Your task to perform on an android device: uninstall "Reddit" Image 0: 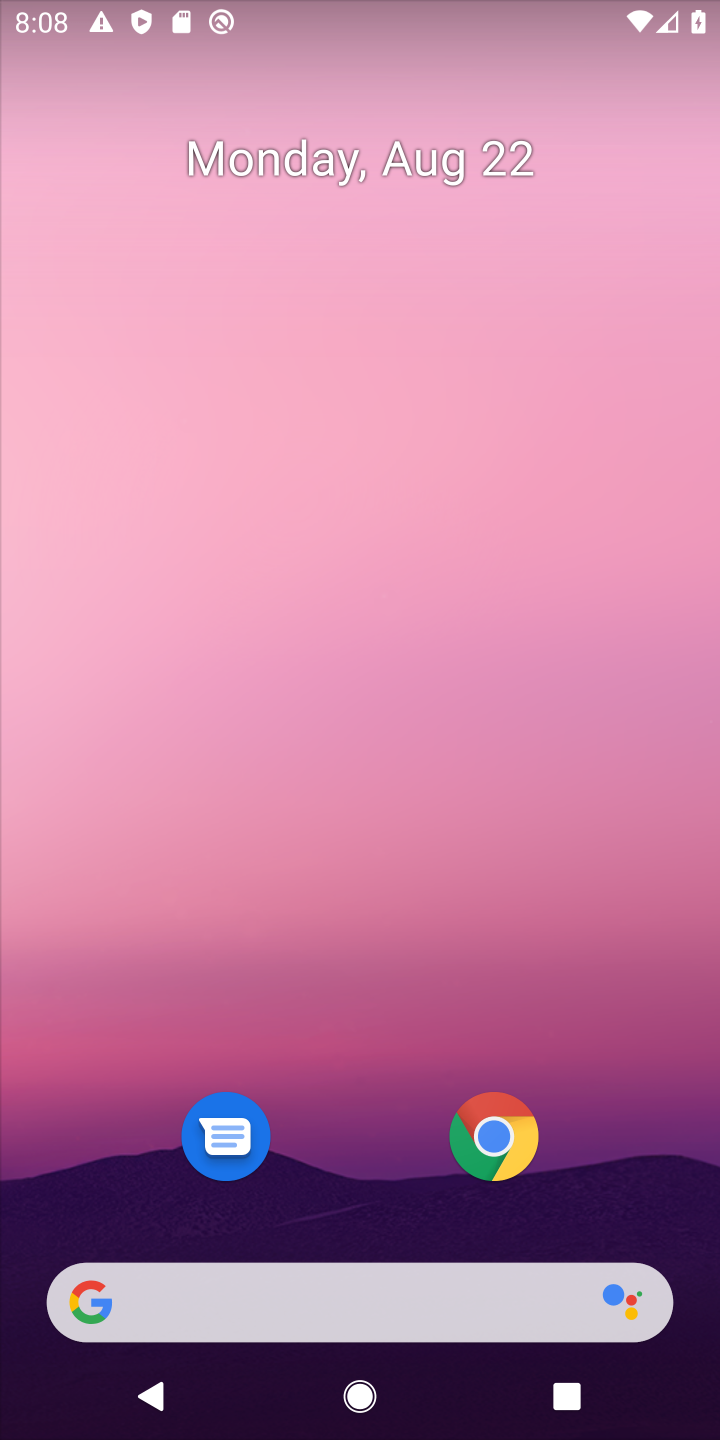
Step 0: drag from (290, 1093) to (201, 329)
Your task to perform on an android device: uninstall "Reddit" Image 1: 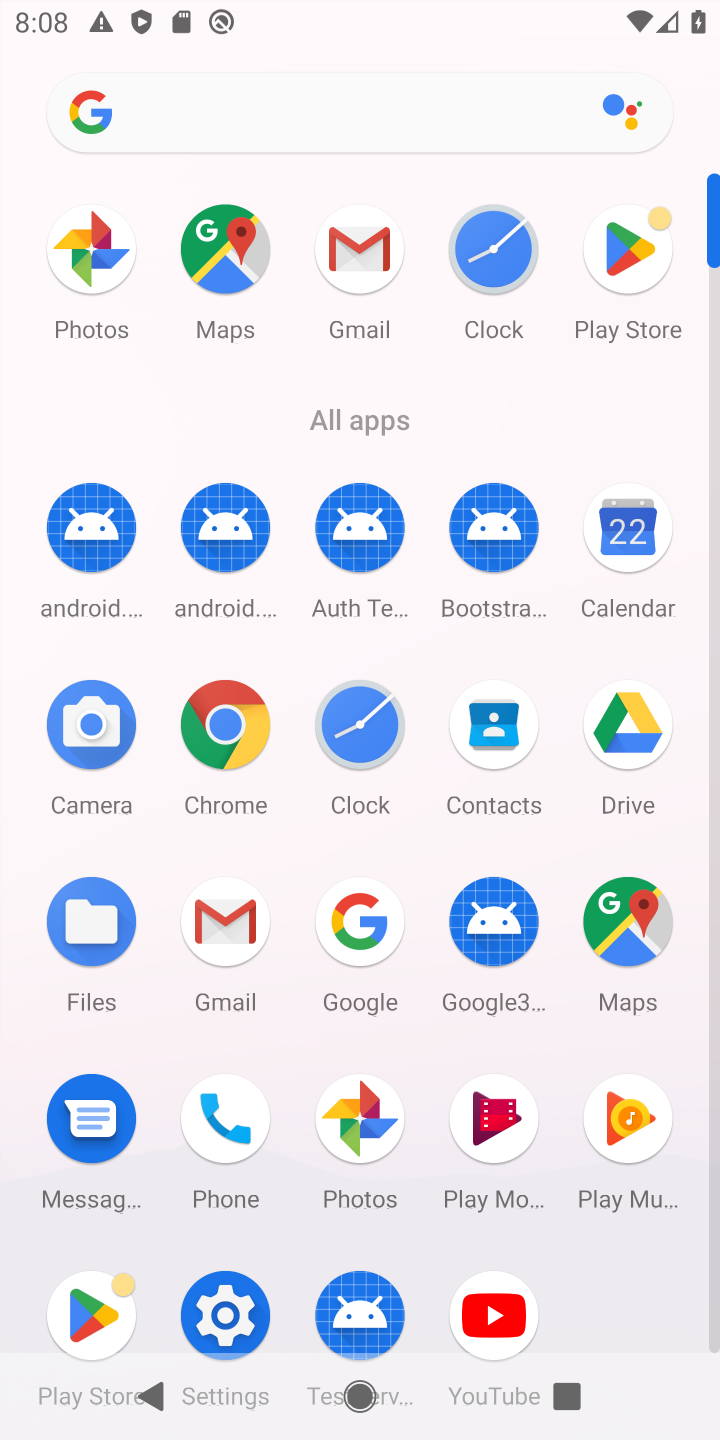
Step 1: click (613, 243)
Your task to perform on an android device: uninstall "Reddit" Image 2: 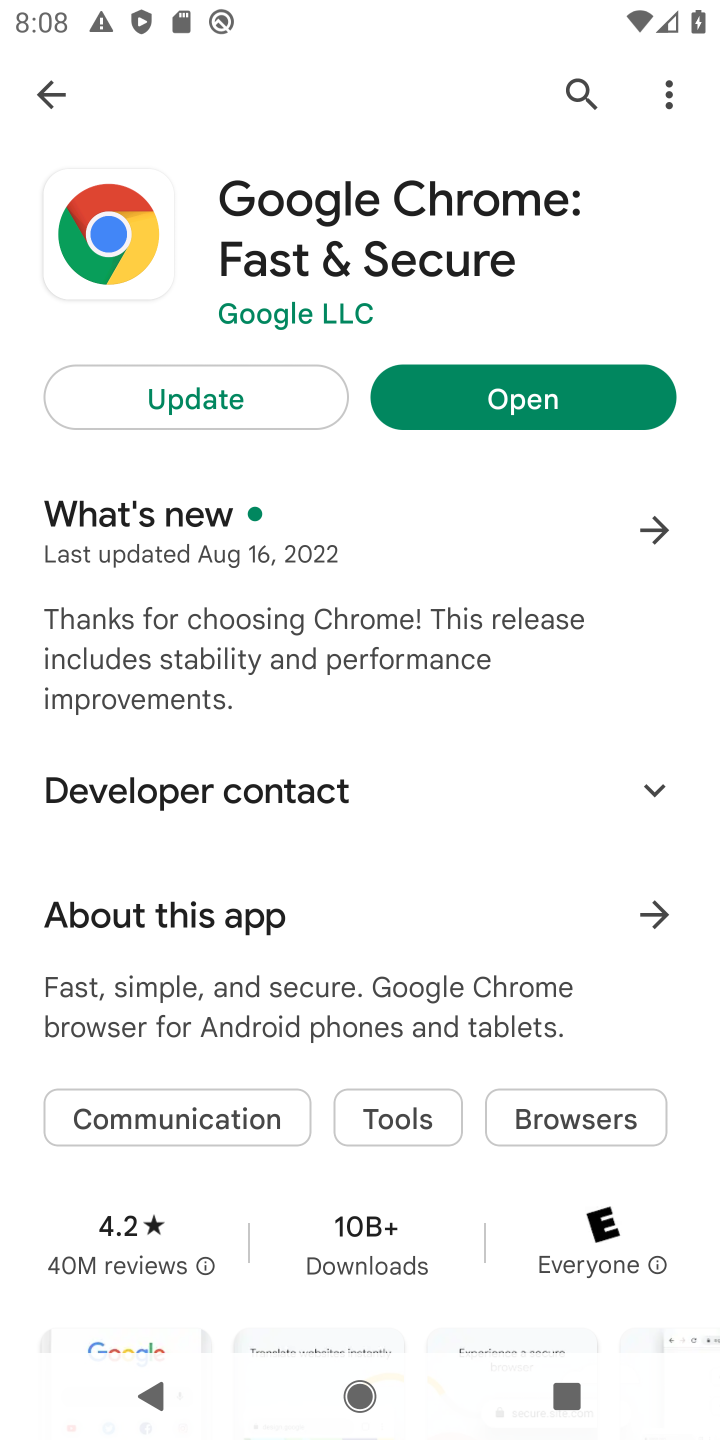
Step 2: click (23, 87)
Your task to perform on an android device: uninstall "Reddit" Image 3: 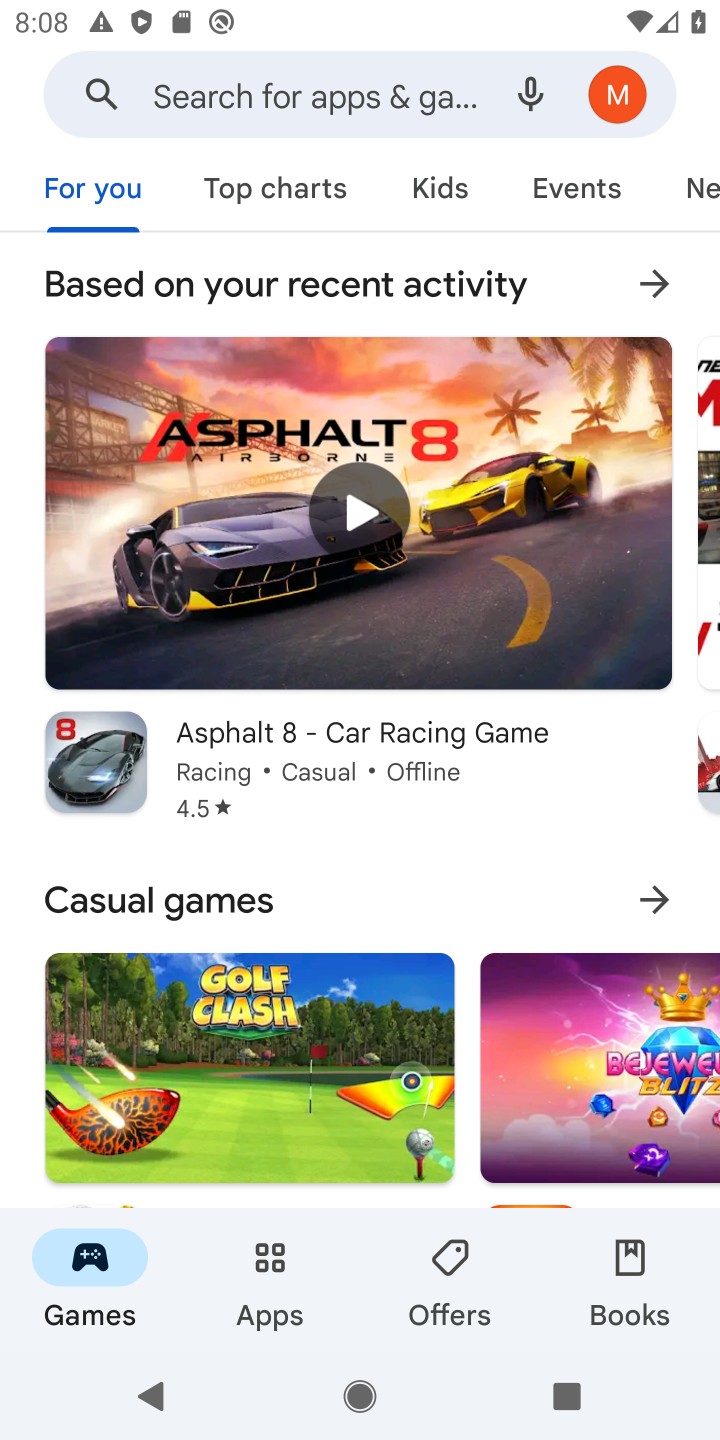
Step 3: click (204, 91)
Your task to perform on an android device: uninstall "Reddit" Image 4: 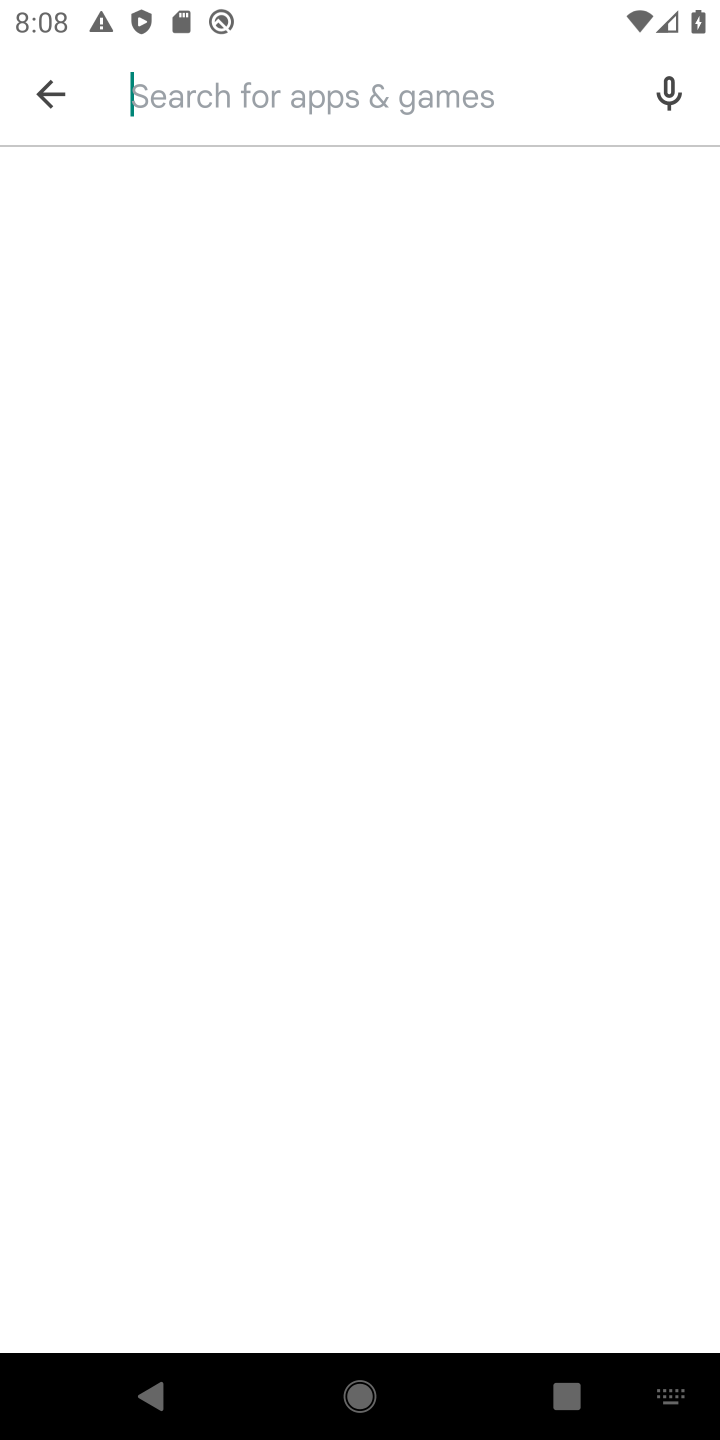
Step 4: type "reddit "
Your task to perform on an android device: uninstall "Reddit" Image 5: 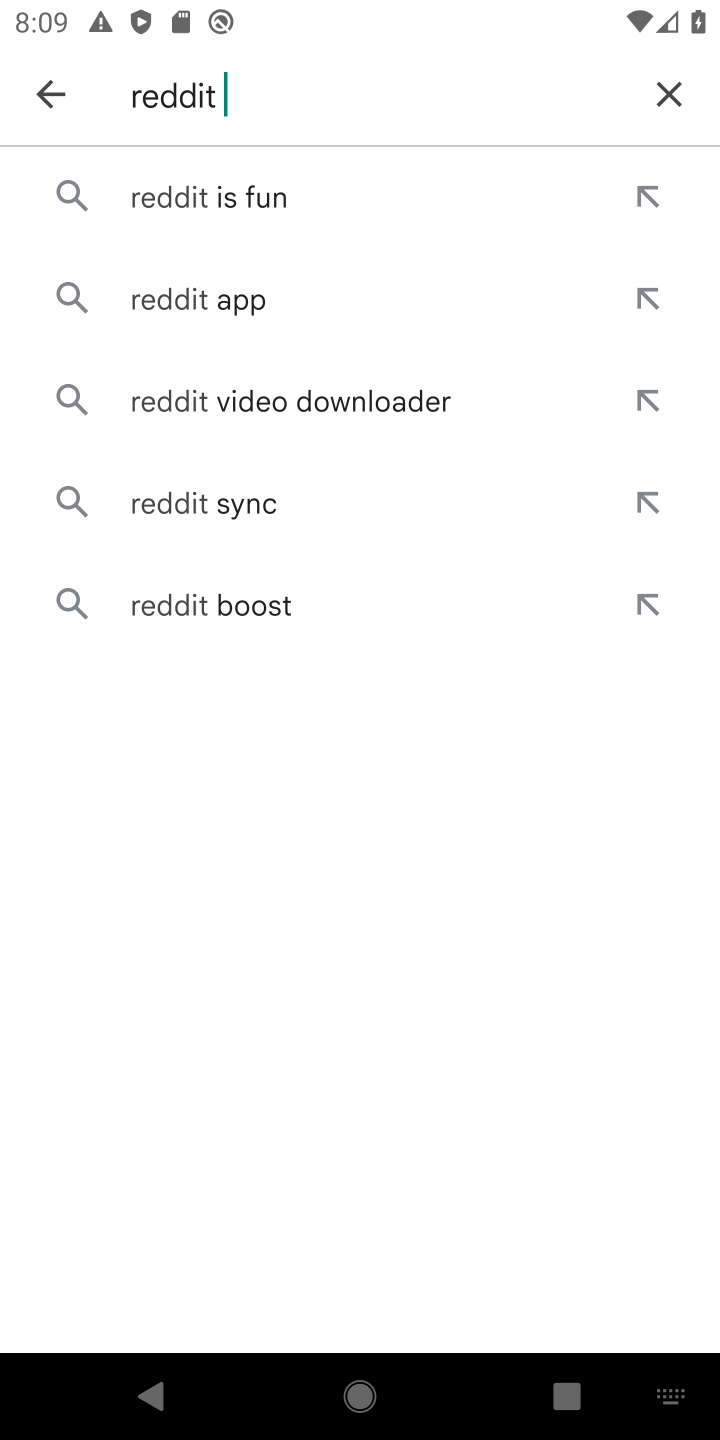
Step 5: click (195, 294)
Your task to perform on an android device: uninstall "Reddit" Image 6: 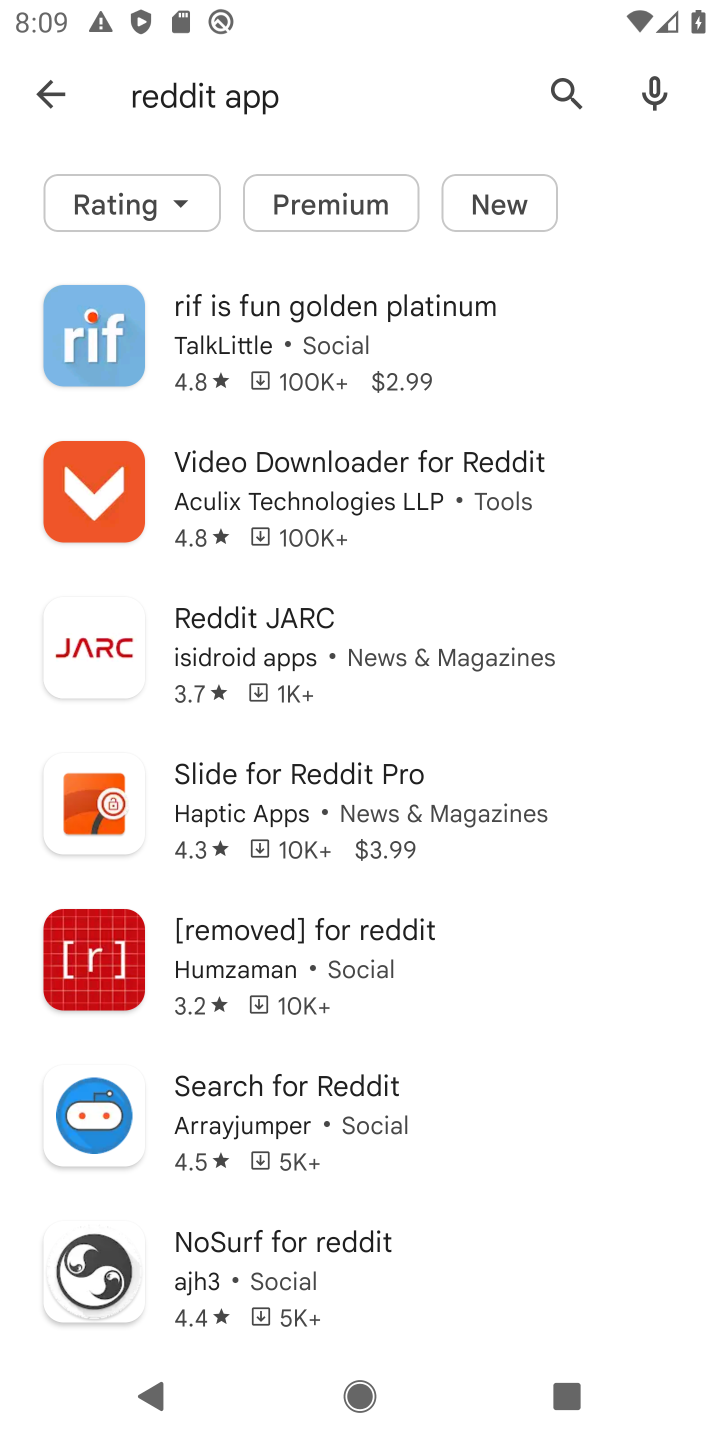
Step 6: click (286, 636)
Your task to perform on an android device: uninstall "Reddit" Image 7: 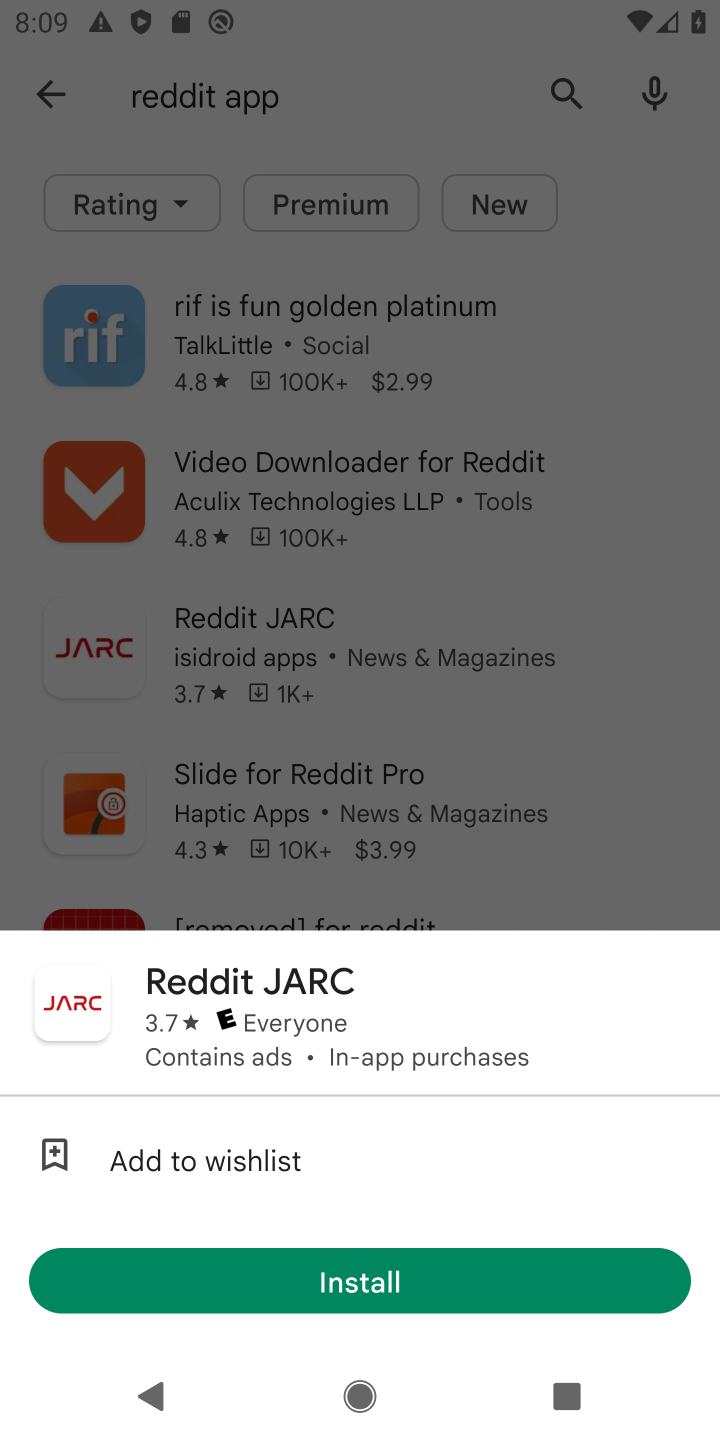
Step 7: task complete